Your task to perform on an android device: turn off improve location accuracy Image 0: 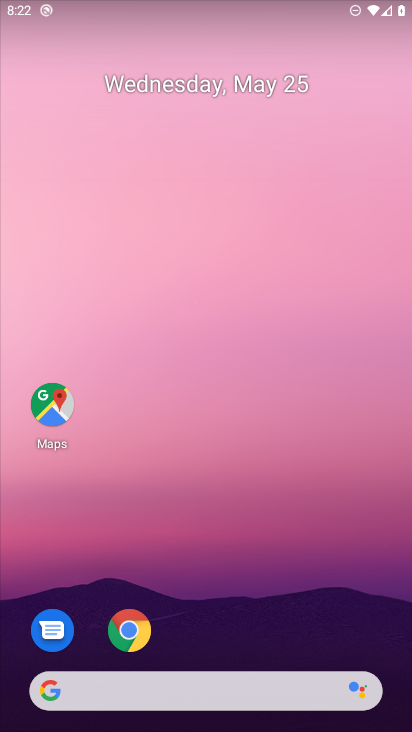
Step 0: drag from (229, 633) to (279, 269)
Your task to perform on an android device: turn off improve location accuracy Image 1: 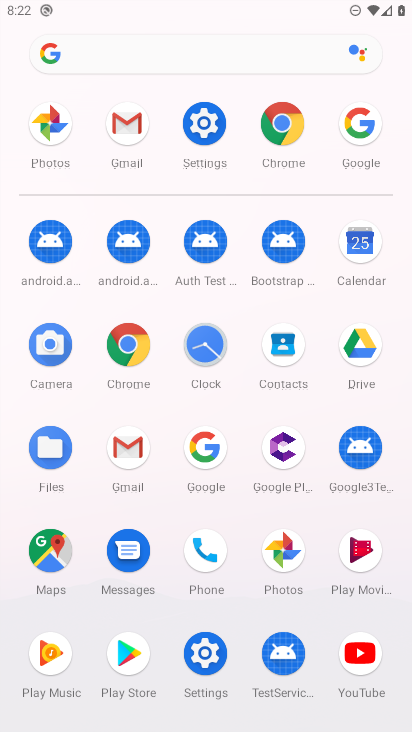
Step 1: click (194, 134)
Your task to perform on an android device: turn off improve location accuracy Image 2: 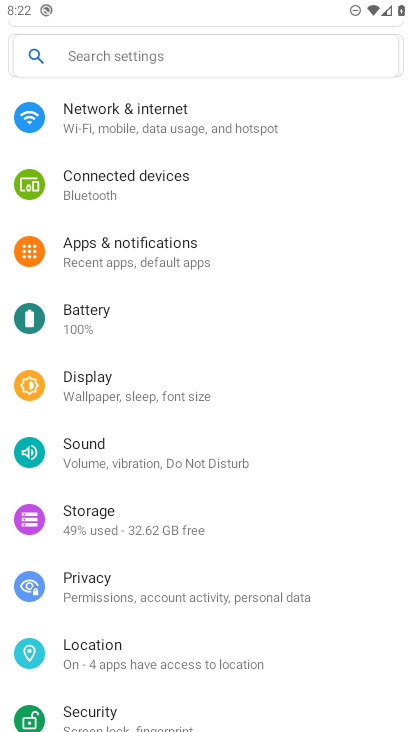
Step 2: click (104, 658)
Your task to perform on an android device: turn off improve location accuracy Image 3: 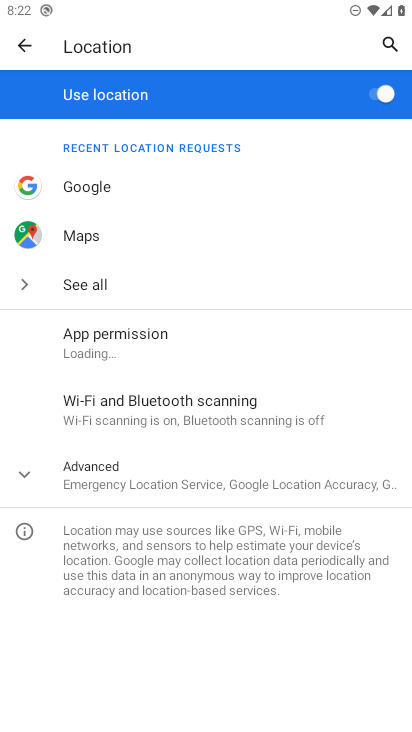
Step 3: click (126, 480)
Your task to perform on an android device: turn off improve location accuracy Image 4: 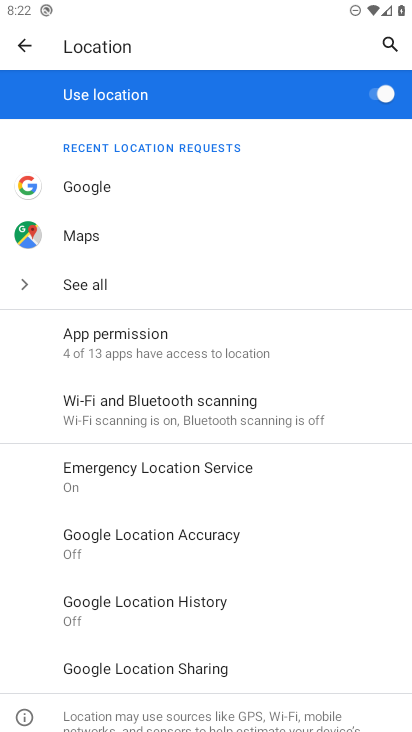
Step 4: click (172, 535)
Your task to perform on an android device: turn off improve location accuracy Image 5: 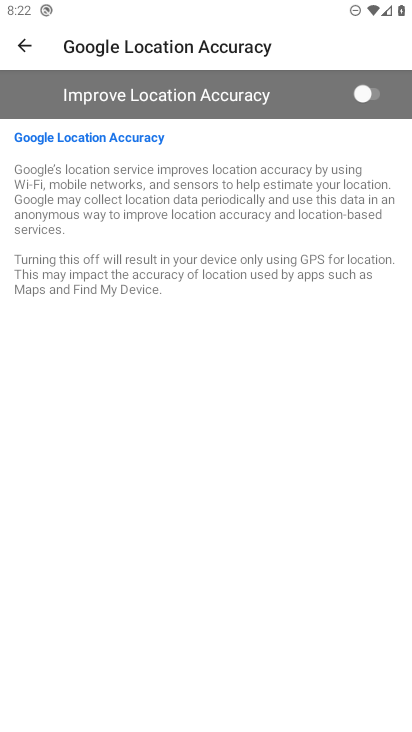
Step 5: task complete